Your task to perform on an android device: star an email in the gmail app Image 0: 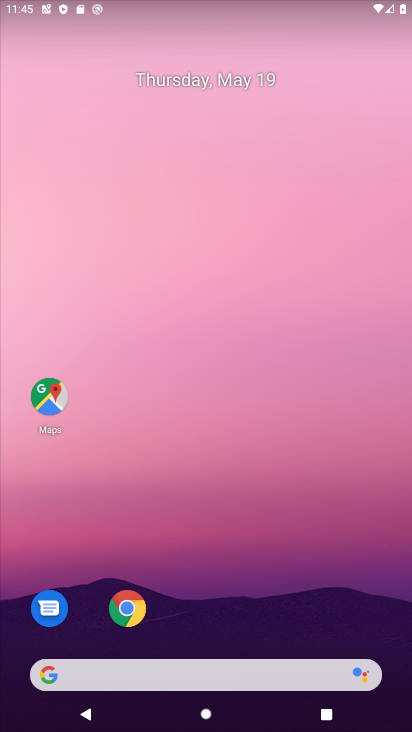
Step 0: drag from (355, 625) to (358, 235)
Your task to perform on an android device: star an email in the gmail app Image 1: 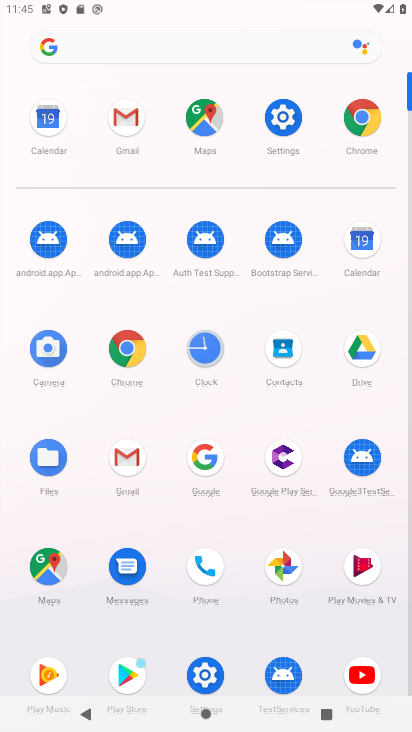
Step 1: click (358, 235)
Your task to perform on an android device: star an email in the gmail app Image 2: 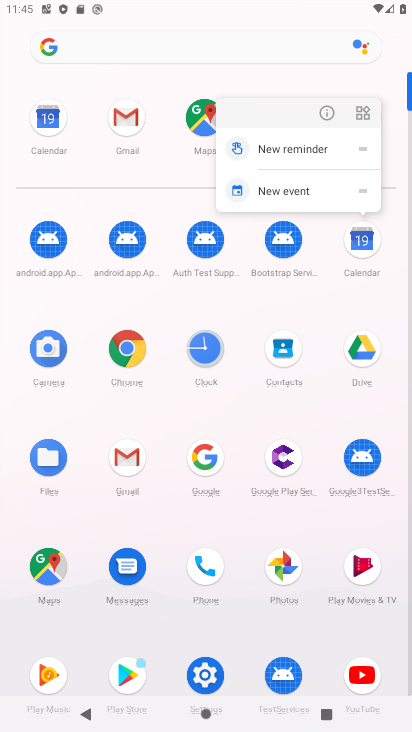
Step 2: click (131, 466)
Your task to perform on an android device: star an email in the gmail app Image 3: 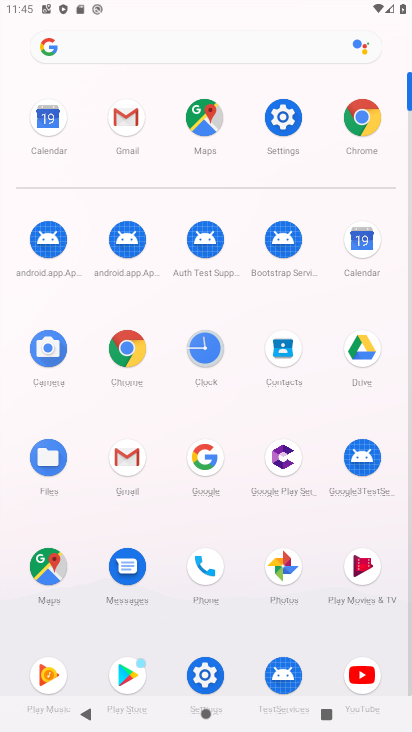
Step 3: click (131, 466)
Your task to perform on an android device: star an email in the gmail app Image 4: 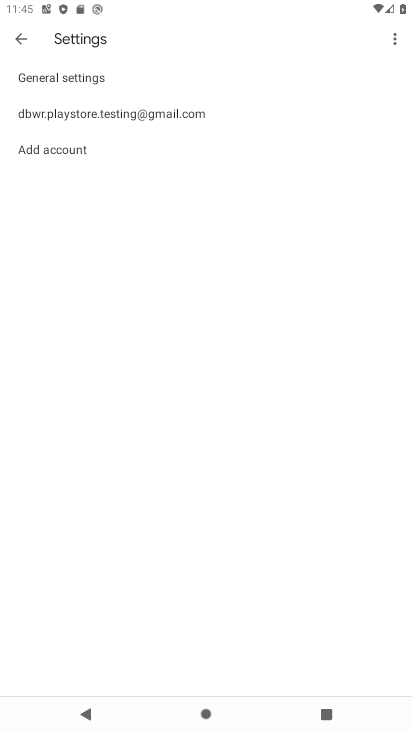
Step 4: click (14, 44)
Your task to perform on an android device: star an email in the gmail app Image 5: 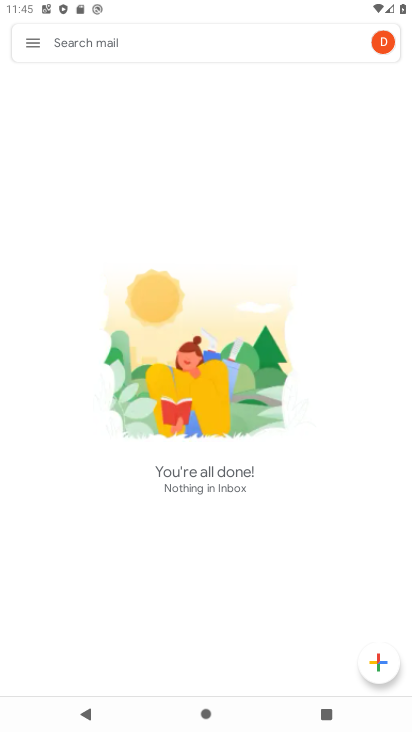
Step 5: click (37, 45)
Your task to perform on an android device: star an email in the gmail app Image 6: 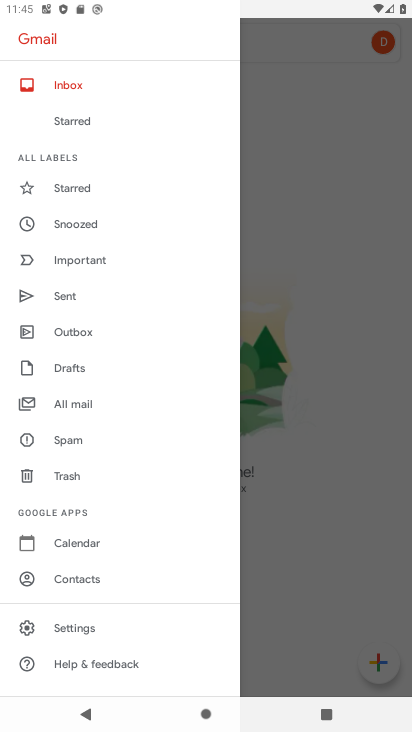
Step 6: drag from (159, 255) to (172, 477)
Your task to perform on an android device: star an email in the gmail app Image 7: 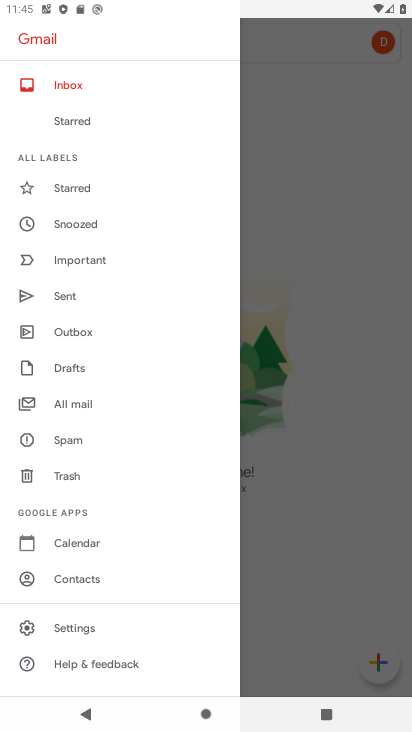
Step 7: click (73, 78)
Your task to perform on an android device: star an email in the gmail app Image 8: 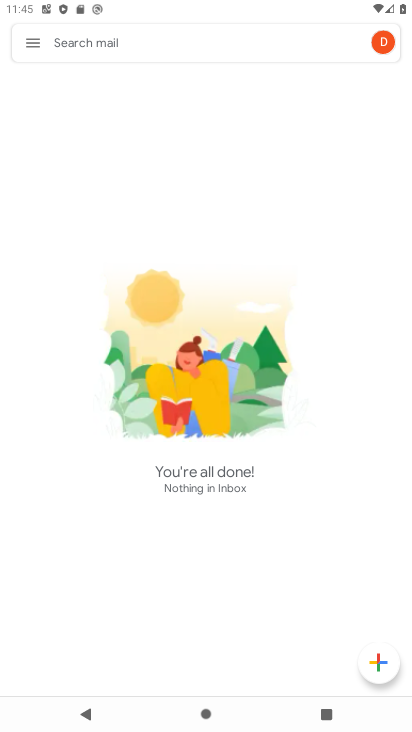
Step 8: task complete